Your task to perform on an android device: turn notification dots on Image 0: 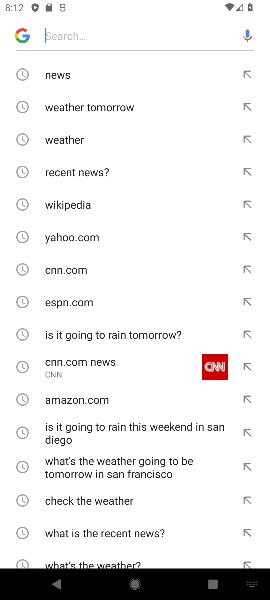
Step 0: press home button
Your task to perform on an android device: turn notification dots on Image 1: 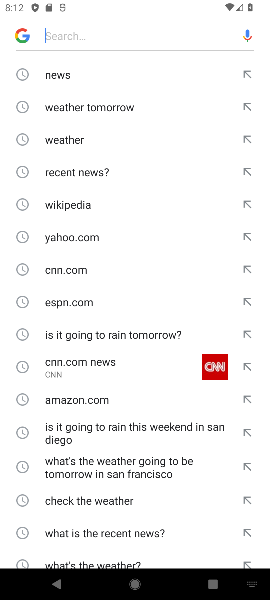
Step 1: press back button
Your task to perform on an android device: turn notification dots on Image 2: 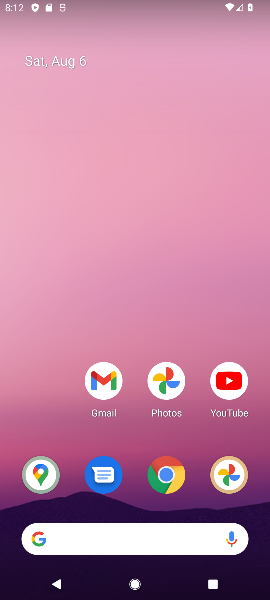
Step 2: drag from (122, 432) to (122, 107)
Your task to perform on an android device: turn notification dots on Image 3: 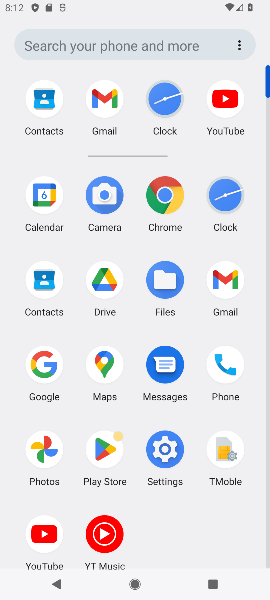
Step 3: click (151, 447)
Your task to perform on an android device: turn notification dots on Image 4: 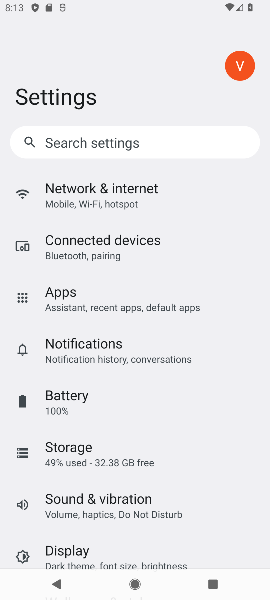
Step 4: click (146, 347)
Your task to perform on an android device: turn notification dots on Image 5: 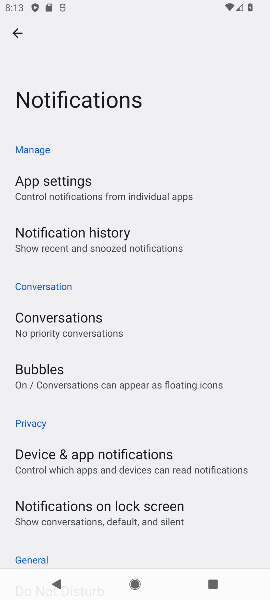
Step 5: task complete